Your task to perform on an android device: Open eBay Image 0: 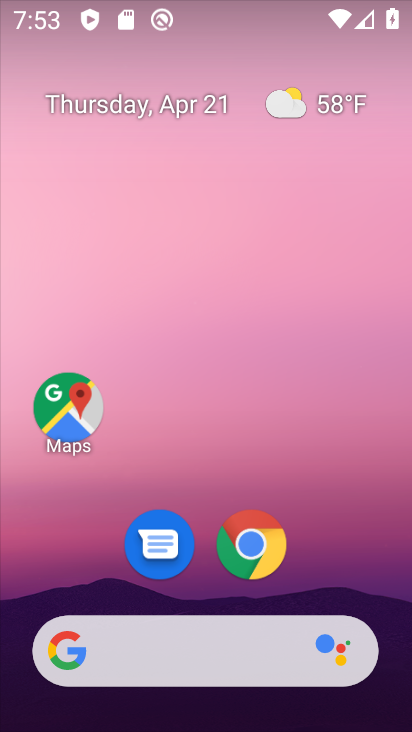
Step 0: drag from (231, 493) to (219, 330)
Your task to perform on an android device: Open eBay Image 1: 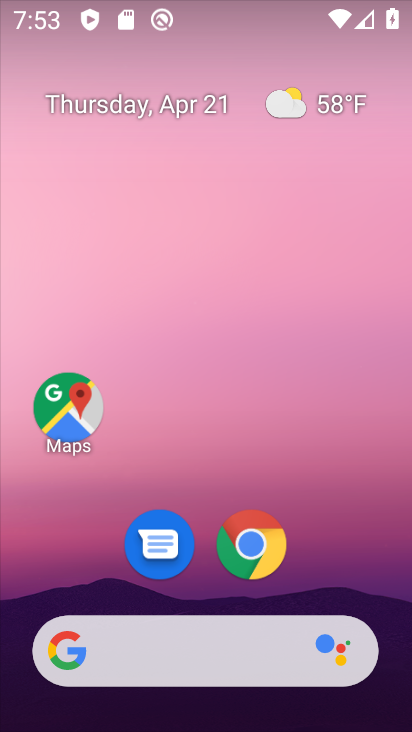
Step 1: drag from (296, 706) to (174, 185)
Your task to perform on an android device: Open eBay Image 2: 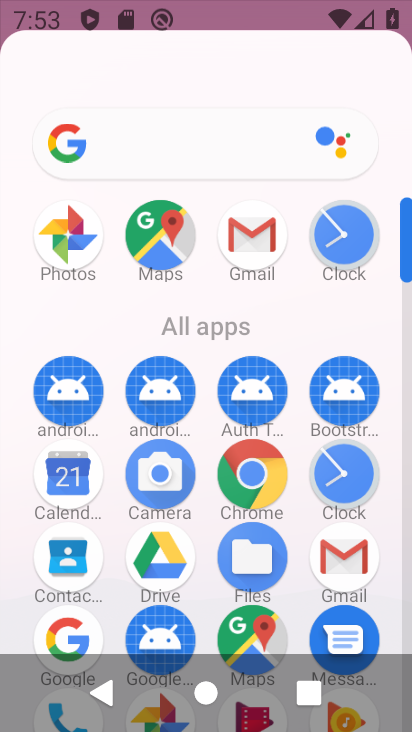
Step 2: drag from (291, 648) to (184, 133)
Your task to perform on an android device: Open eBay Image 3: 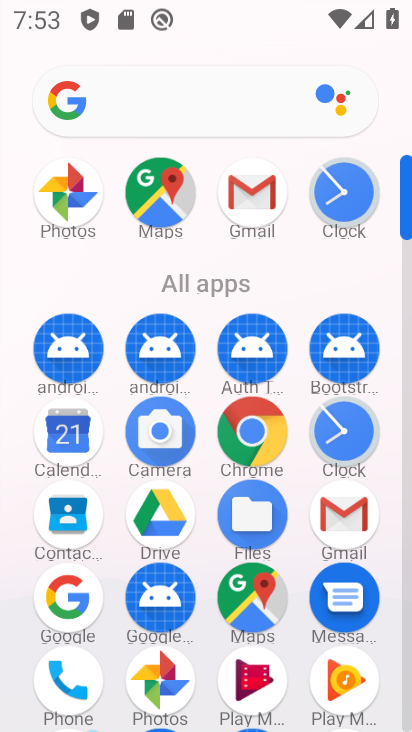
Step 3: click (243, 434)
Your task to perform on an android device: Open eBay Image 4: 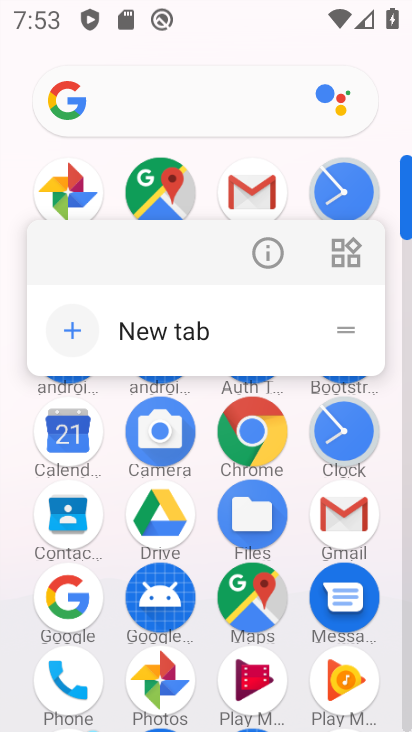
Step 4: click (243, 428)
Your task to perform on an android device: Open eBay Image 5: 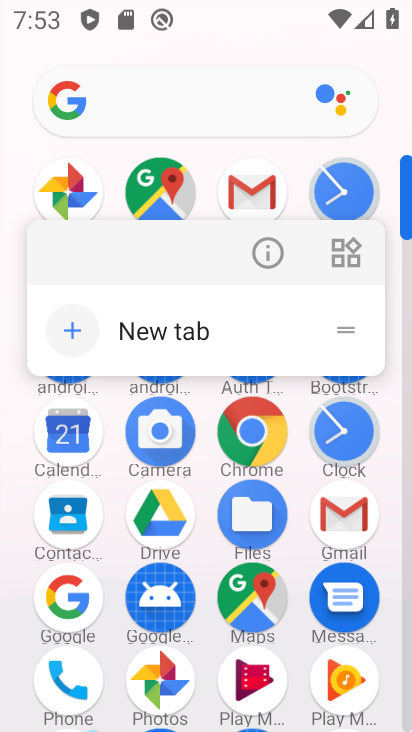
Step 5: click (249, 423)
Your task to perform on an android device: Open eBay Image 6: 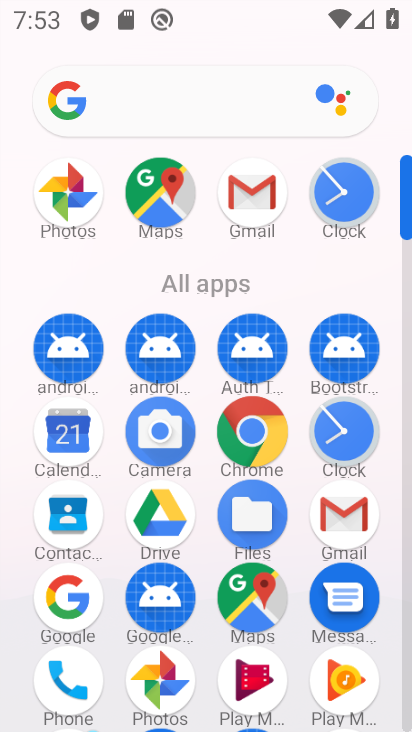
Step 6: click (249, 423)
Your task to perform on an android device: Open eBay Image 7: 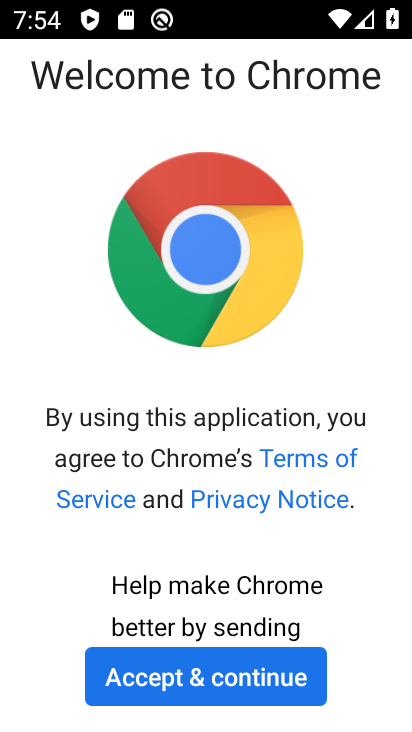
Step 7: click (209, 669)
Your task to perform on an android device: Open eBay Image 8: 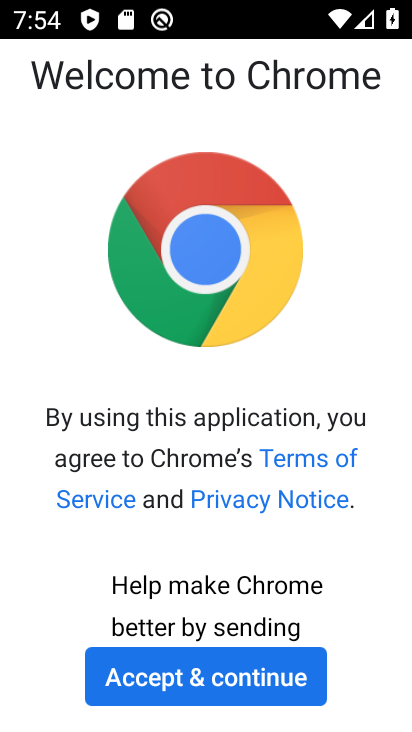
Step 8: click (209, 669)
Your task to perform on an android device: Open eBay Image 9: 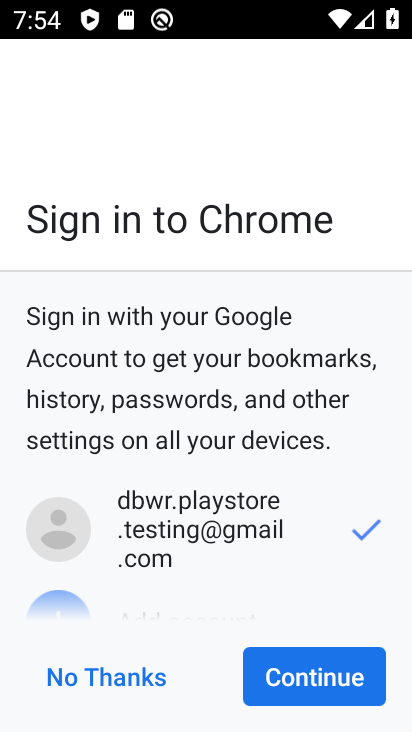
Step 9: click (208, 669)
Your task to perform on an android device: Open eBay Image 10: 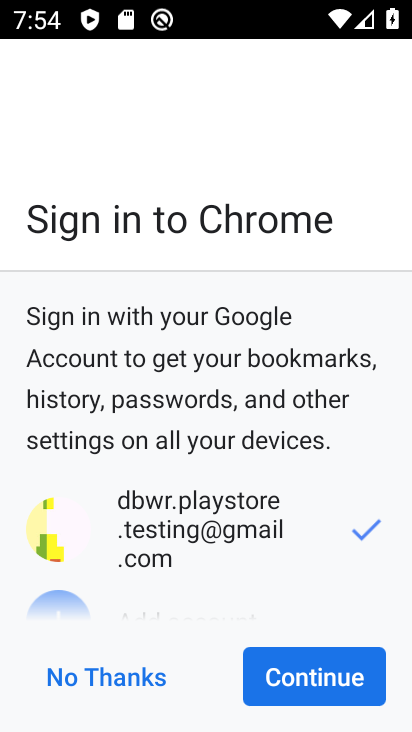
Step 10: click (336, 673)
Your task to perform on an android device: Open eBay Image 11: 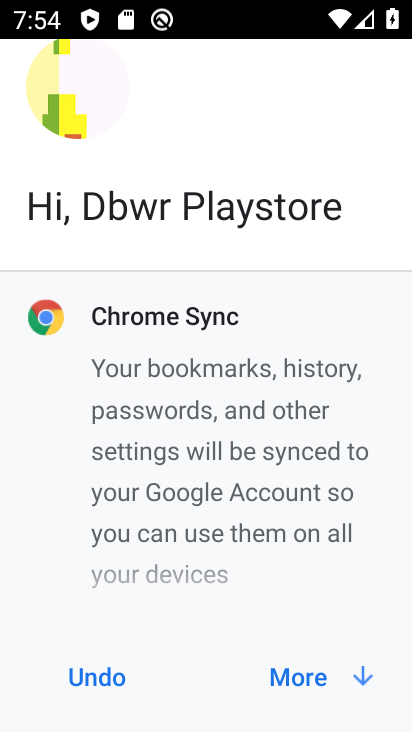
Step 11: click (336, 668)
Your task to perform on an android device: Open eBay Image 12: 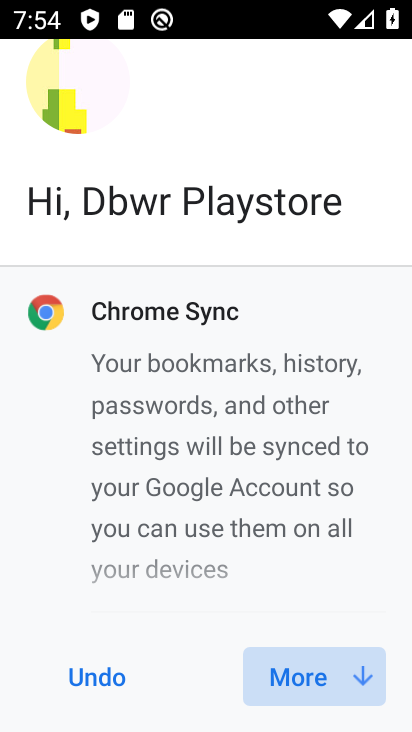
Step 12: click (336, 668)
Your task to perform on an android device: Open eBay Image 13: 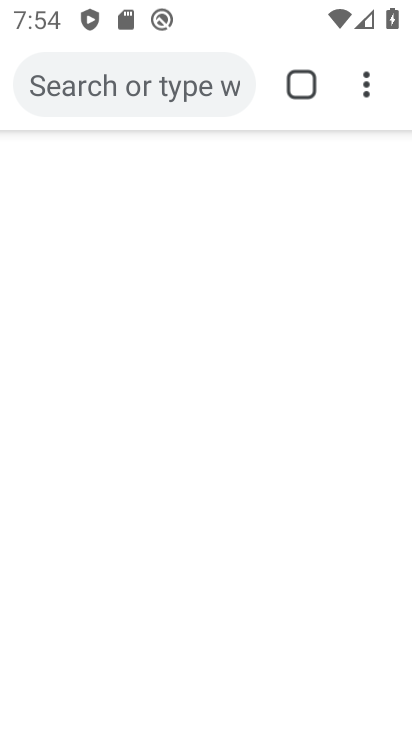
Step 13: click (331, 675)
Your task to perform on an android device: Open eBay Image 14: 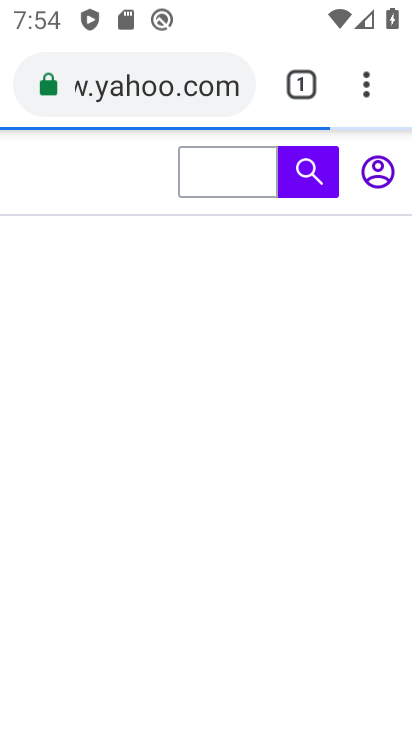
Step 14: drag from (366, 82) to (103, 184)
Your task to perform on an android device: Open eBay Image 15: 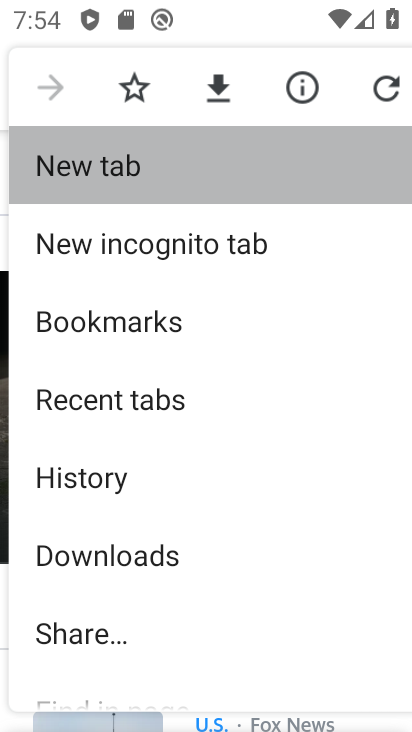
Step 15: click (103, 184)
Your task to perform on an android device: Open eBay Image 16: 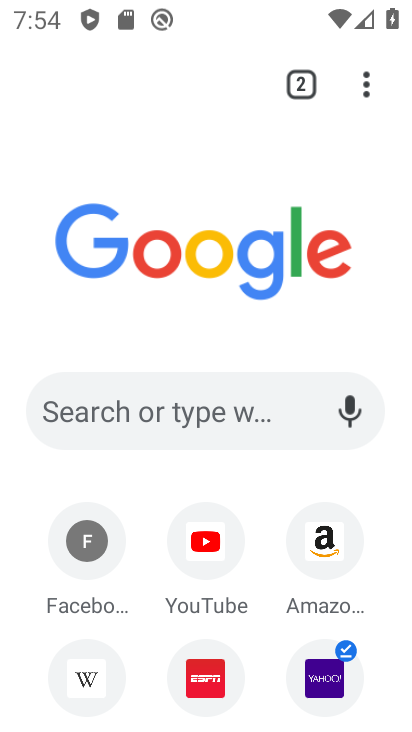
Step 16: drag from (230, 643) to (167, 204)
Your task to perform on an android device: Open eBay Image 17: 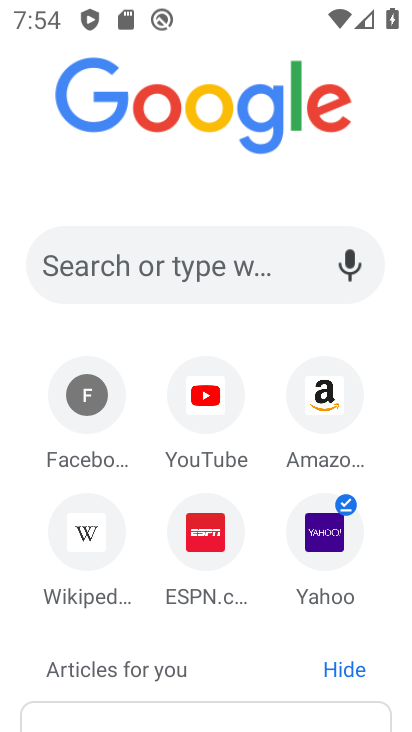
Step 17: drag from (268, 595) to (247, 259)
Your task to perform on an android device: Open eBay Image 18: 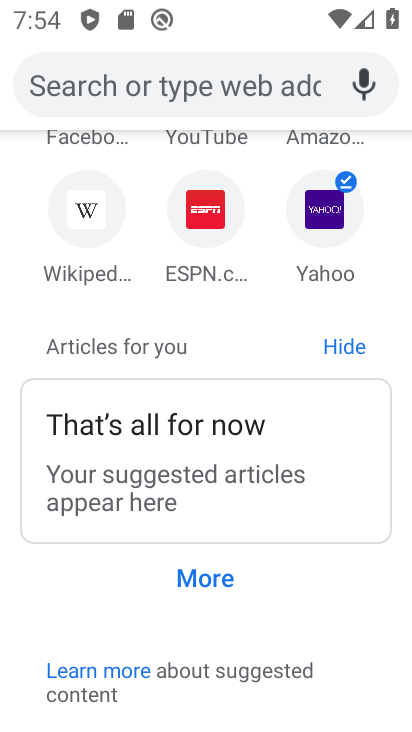
Step 18: drag from (140, 189) to (115, 604)
Your task to perform on an android device: Open eBay Image 19: 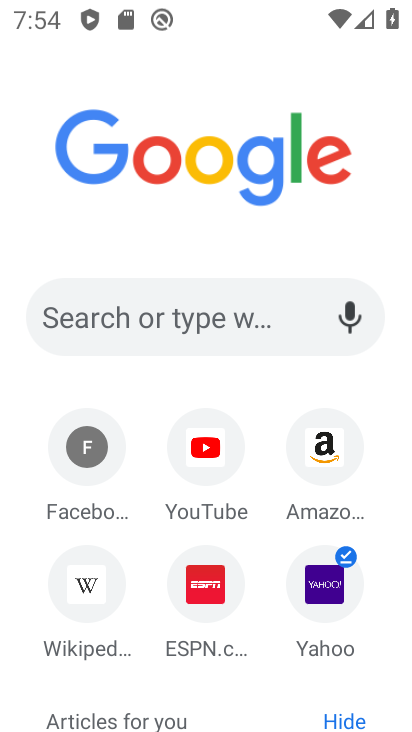
Step 19: drag from (200, 279) to (248, 632)
Your task to perform on an android device: Open eBay Image 20: 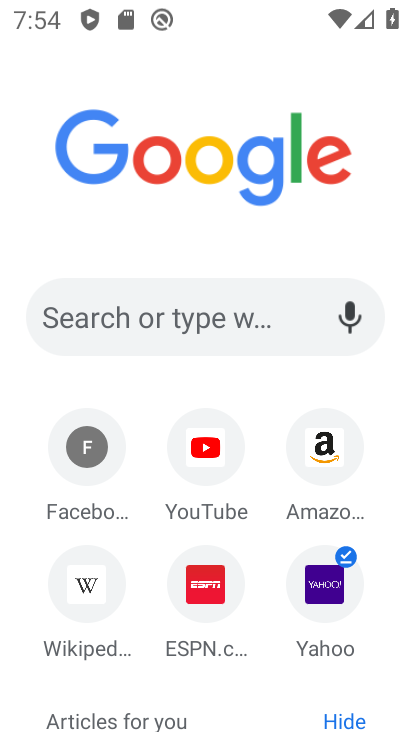
Step 20: click (129, 311)
Your task to perform on an android device: Open eBay Image 21: 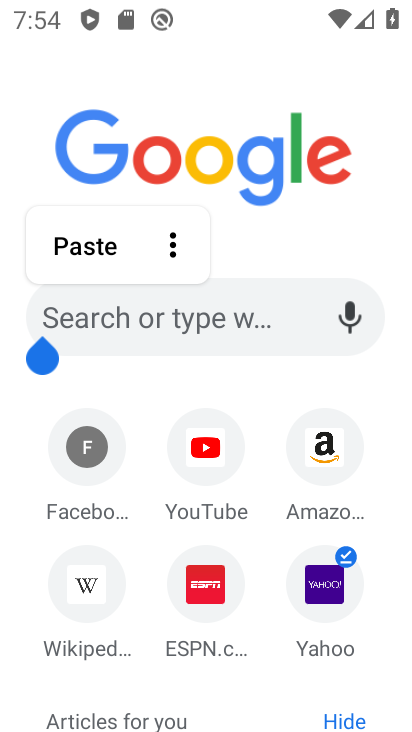
Step 21: click (139, 318)
Your task to perform on an android device: Open eBay Image 22: 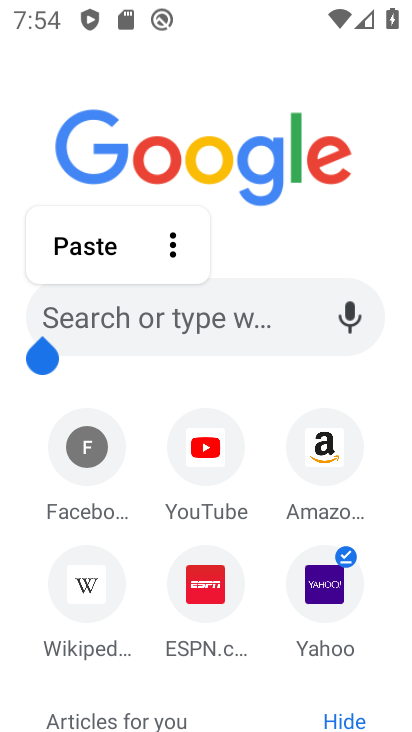
Step 22: click (138, 317)
Your task to perform on an android device: Open eBay Image 23: 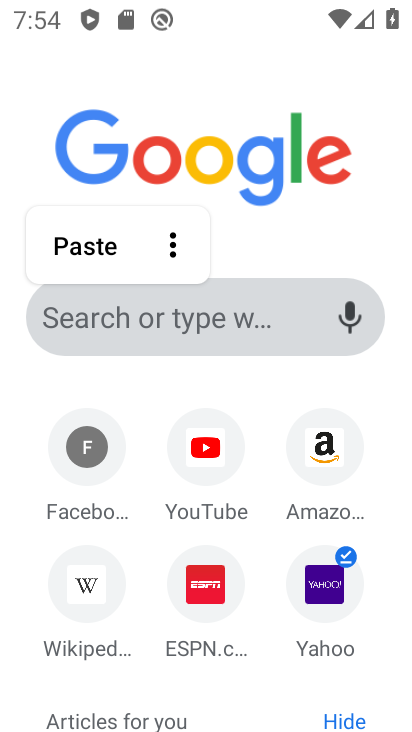
Step 23: click (138, 317)
Your task to perform on an android device: Open eBay Image 24: 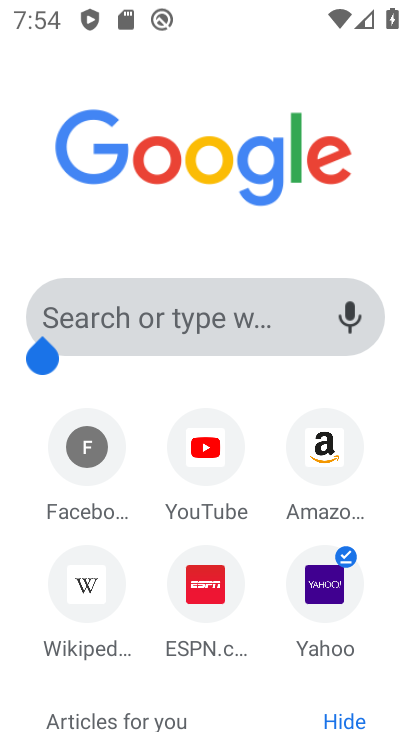
Step 24: click (138, 319)
Your task to perform on an android device: Open eBay Image 25: 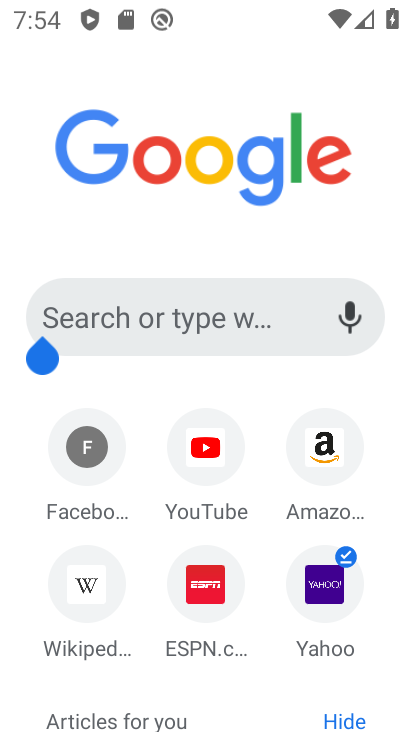
Step 25: click (138, 319)
Your task to perform on an android device: Open eBay Image 26: 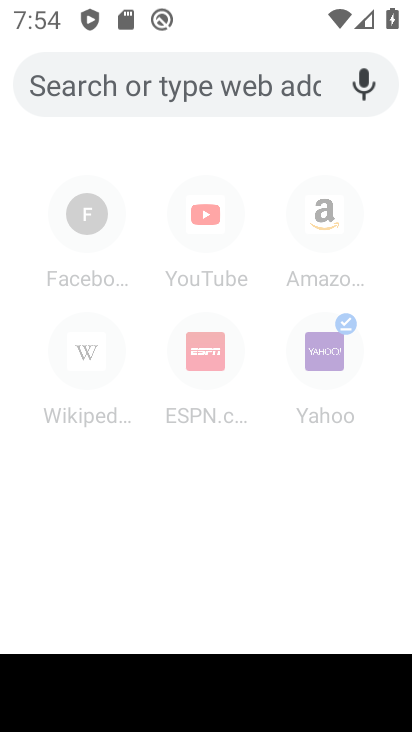
Step 26: type "www.ebay.com"
Your task to perform on an android device: Open eBay Image 27: 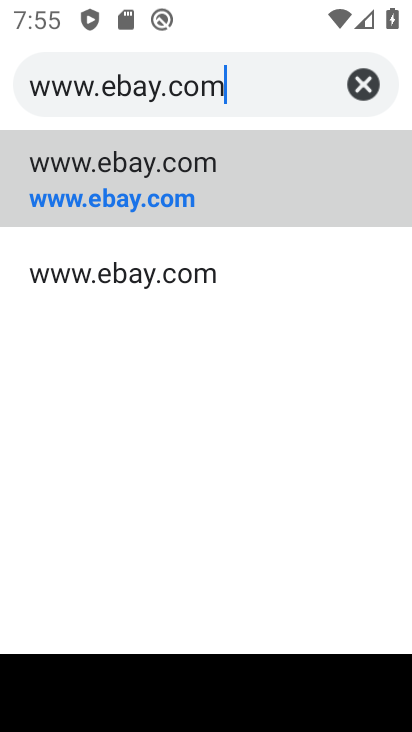
Step 27: click (162, 193)
Your task to perform on an android device: Open eBay Image 28: 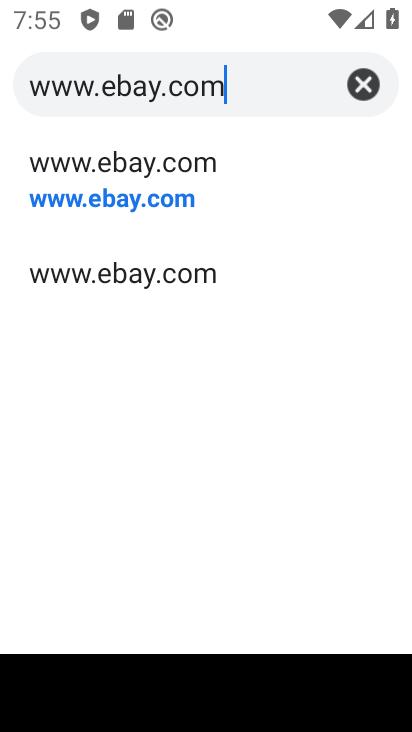
Step 28: click (162, 194)
Your task to perform on an android device: Open eBay Image 29: 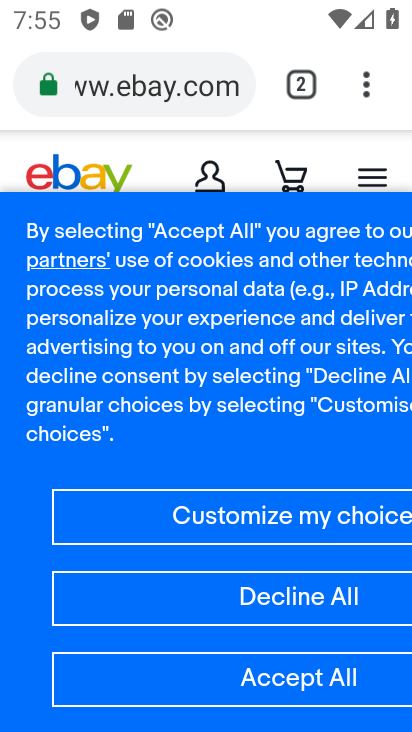
Step 29: task complete